Your task to perform on an android device: refresh tabs in the chrome app Image 0: 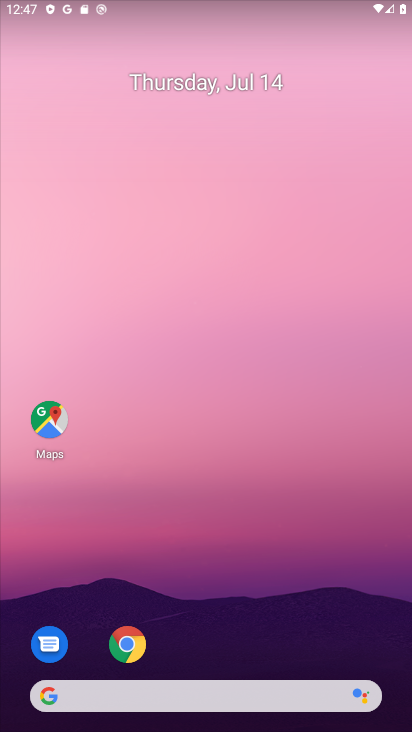
Step 0: click (132, 649)
Your task to perform on an android device: refresh tabs in the chrome app Image 1: 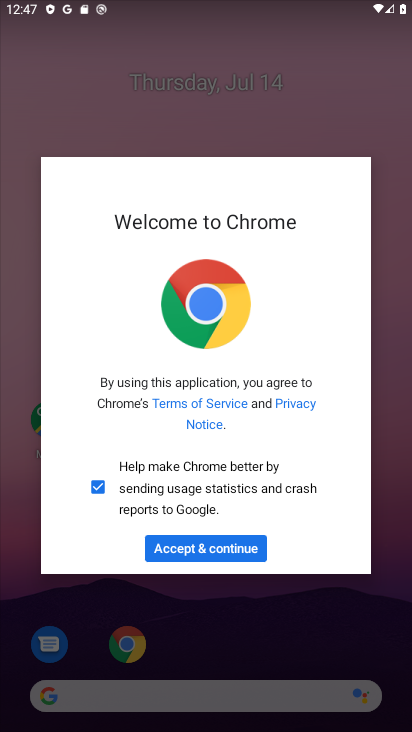
Step 1: click (184, 548)
Your task to perform on an android device: refresh tabs in the chrome app Image 2: 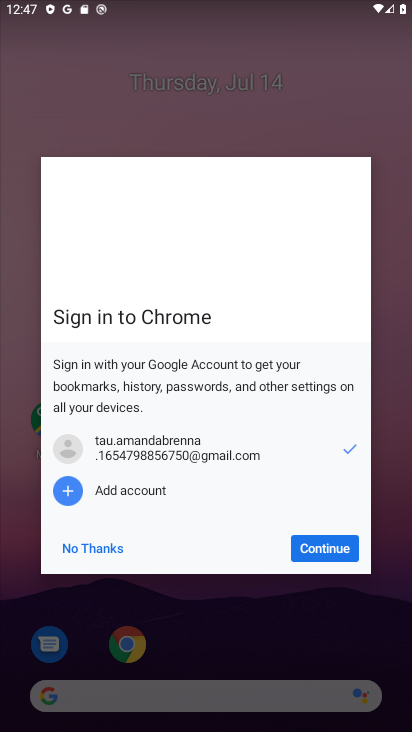
Step 2: click (306, 547)
Your task to perform on an android device: refresh tabs in the chrome app Image 3: 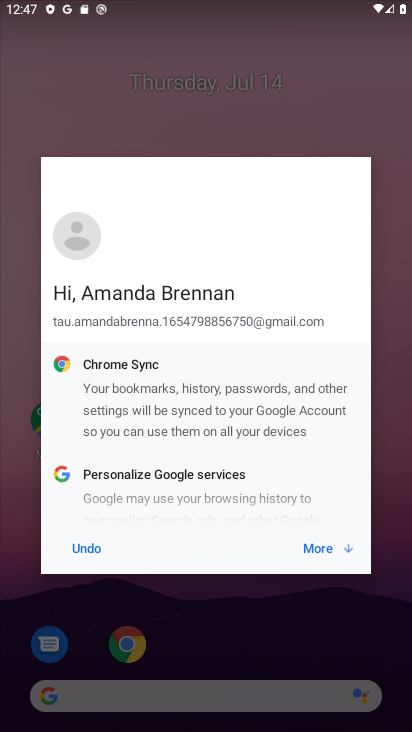
Step 3: click (324, 548)
Your task to perform on an android device: refresh tabs in the chrome app Image 4: 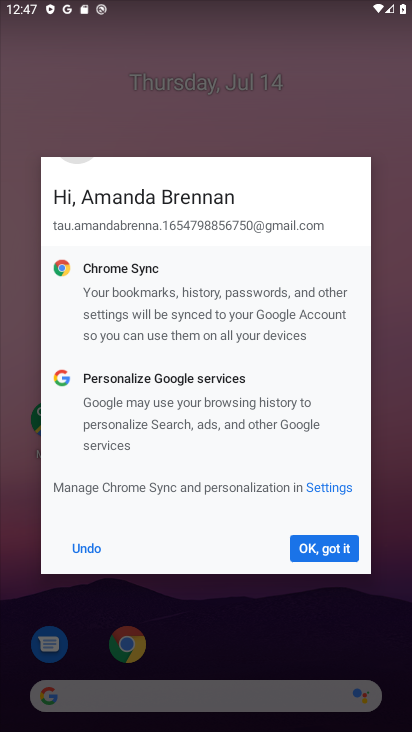
Step 4: click (324, 548)
Your task to perform on an android device: refresh tabs in the chrome app Image 5: 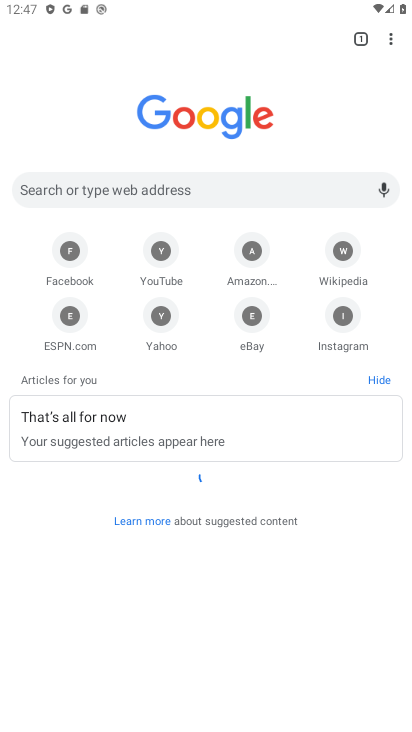
Step 5: click (394, 40)
Your task to perform on an android device: refresh tabs in the chrome app Image 6: 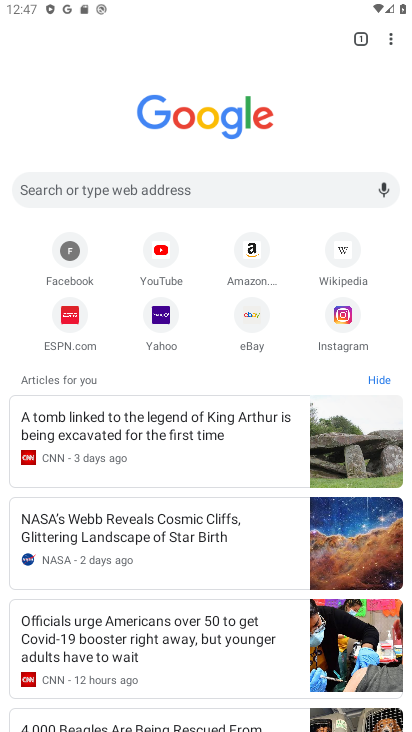
Step 6: task complete